Your task to perform on an android device: Play the last video I watched on Youtube Image 0: 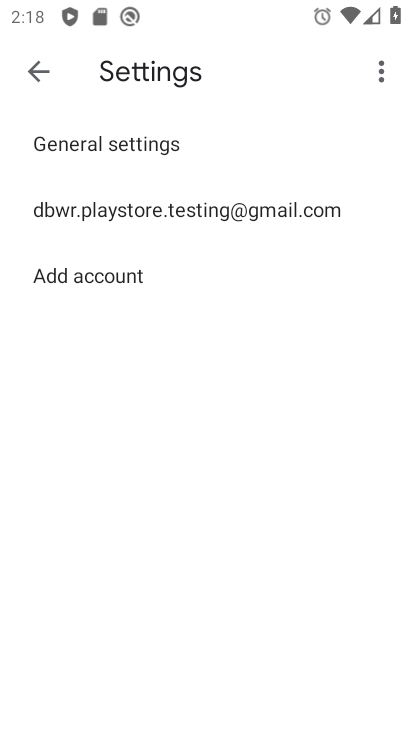
Step 0: press home button
Your task to perform on an android device: Play the last video I watched on Youtube Image 1: 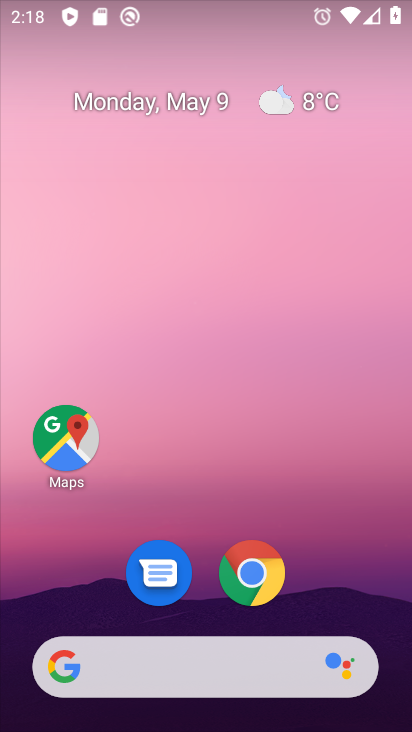
Step 1: drag from (247, 640) to (362, 230)
Your task to perform on an android device: Play the last video I watched on Youtube Image 2: 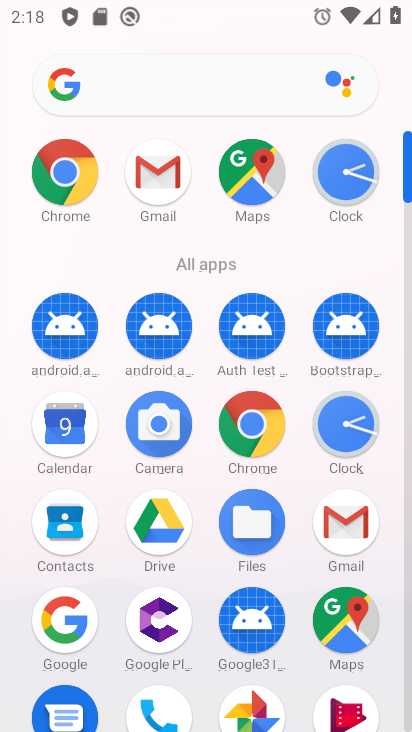
Step 2: drag from (224, 675) to (398, 129)
Your task to perform on an android device: Play the last video I watched on Youtube Image 3: 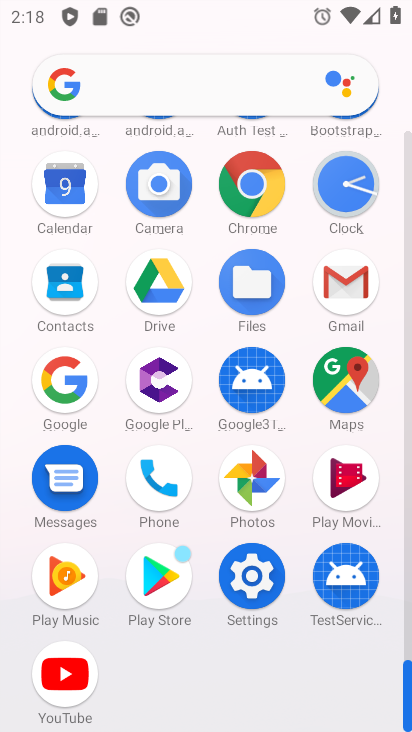
Step 3: click (67, 677)
Your task to perform on an android device: Play the last video I watched on Youtube Image 4: 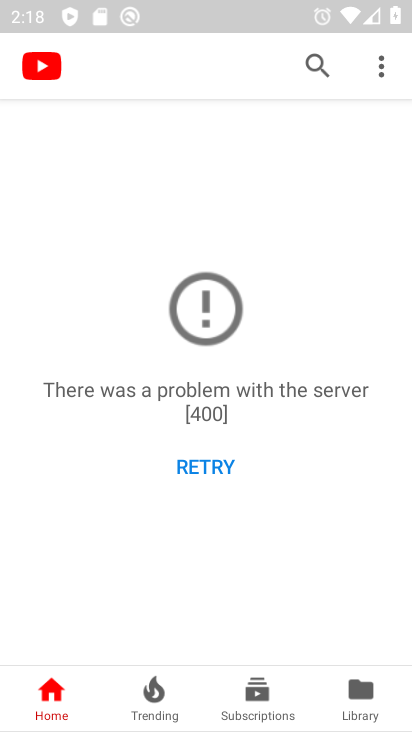
Step 4: click (208, 462)
Your task to perform on an android device: Play the last video I watched on Youtube Image 5: 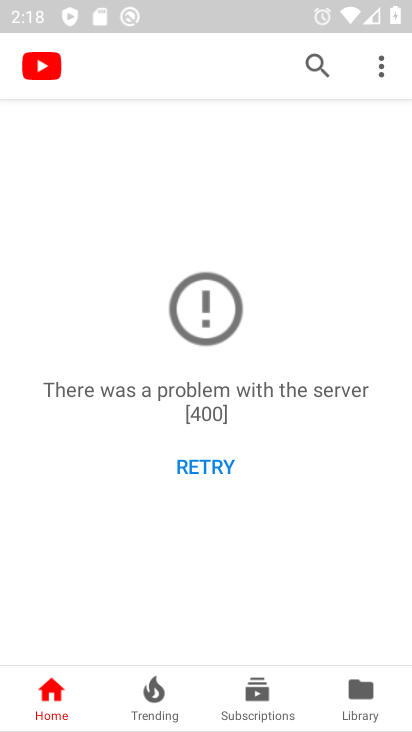
Step 5: click (203, 469)
Your task to perform on an android device: Play the last video I watched on Youtube Image 6: 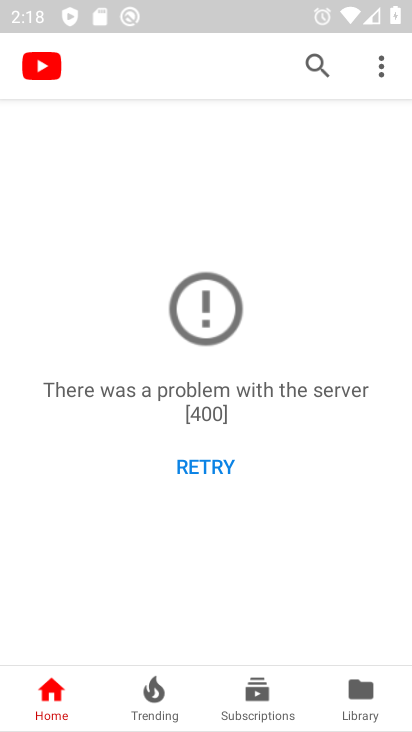
Step 6: click (208, 461)
Your task to perform on an android device: Play the last video I watched on Youtube Image 7: 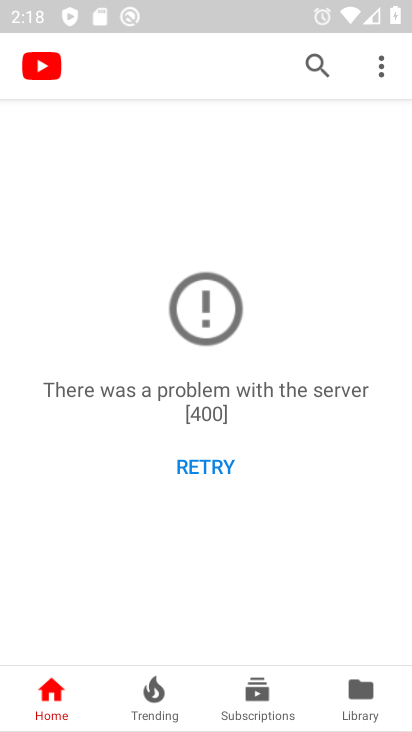
Step 7: click (351, 687)
Your task to perform on an android device: Play the last video I watched on Youtube Image 8: 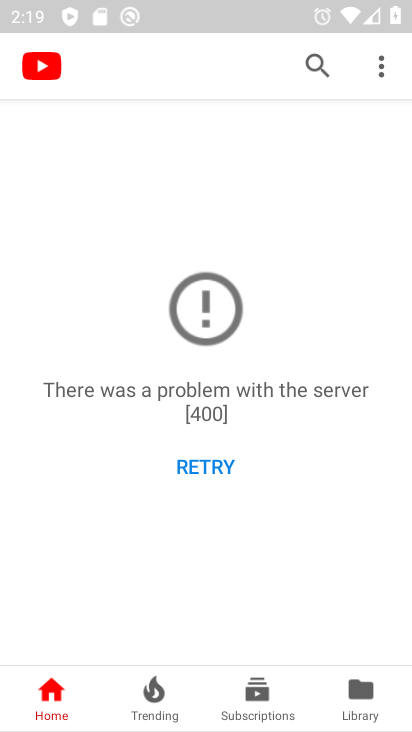
Step 8: click (362, 691)
Your task to perform on an android device: Play the last video I watched on Youtube Image 9: 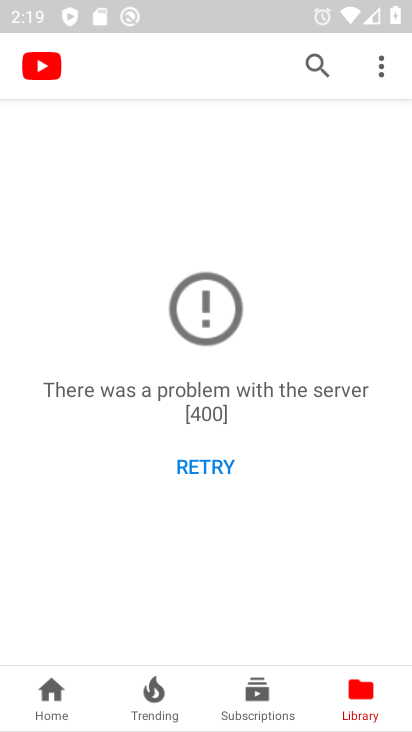
Step 9: click (215, 466)
Your task to perform on an android device: Play the last video I watched on Youtube Image 10: 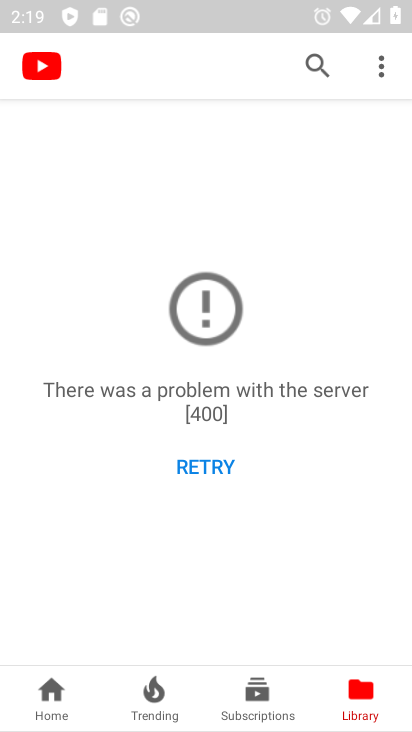
Step 10: click (353, 687)
Your task to perform on an android device: Play the last video I watched on Youtube Image 11: 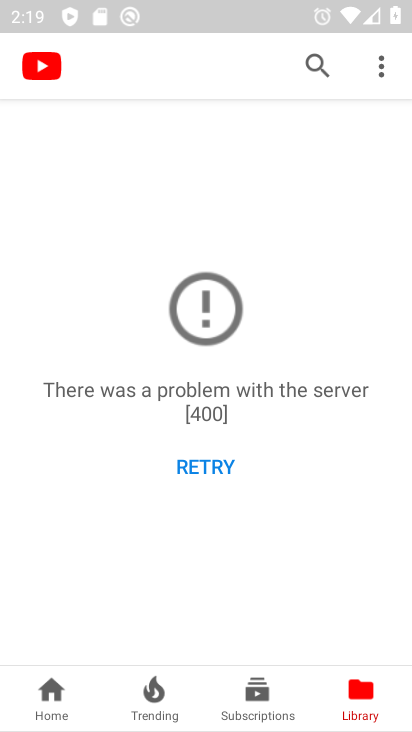
Step 11: task complete